Your task to perform on an android device: turn on the 24-hour format for clock Image 0: 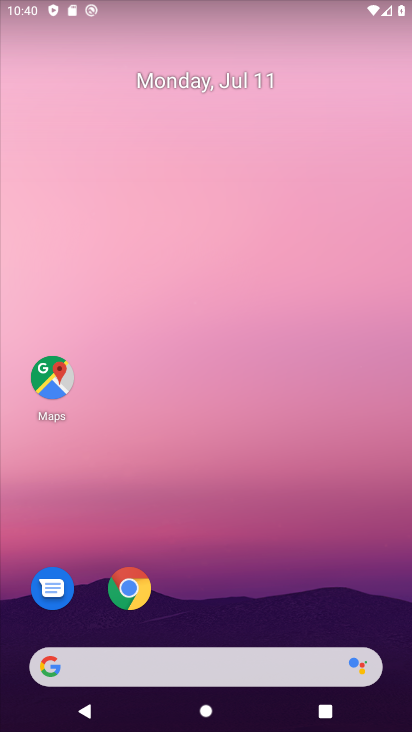
Step 0: drag from (272, 529) to (261, 116)
Your task to perform on an android device: turn on the 24-hour format for clock Image 1: 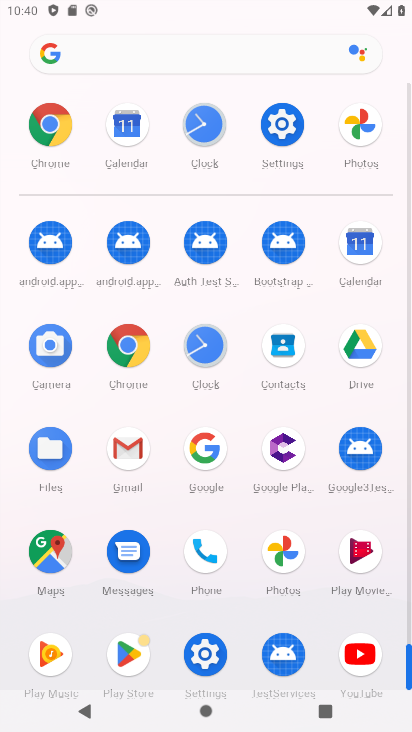
Step 1: click (205, 121)
Your task to perform on an android device: turn on the 24-hour format for clock Image 2: 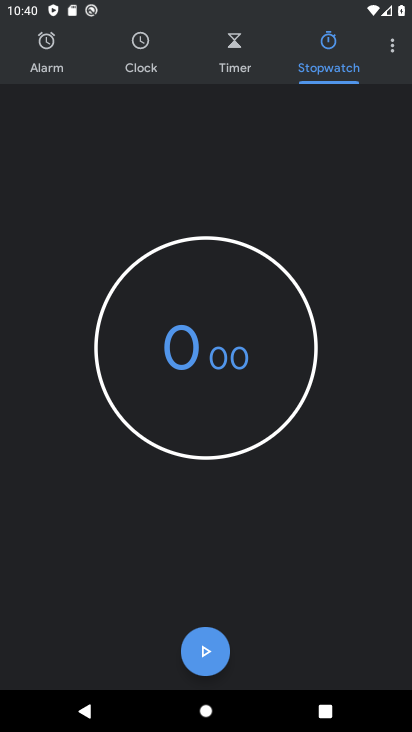
Step 2: click (392, 49)
Your task to perform on an android device: turn on the 24-hour format for clock Image 3: 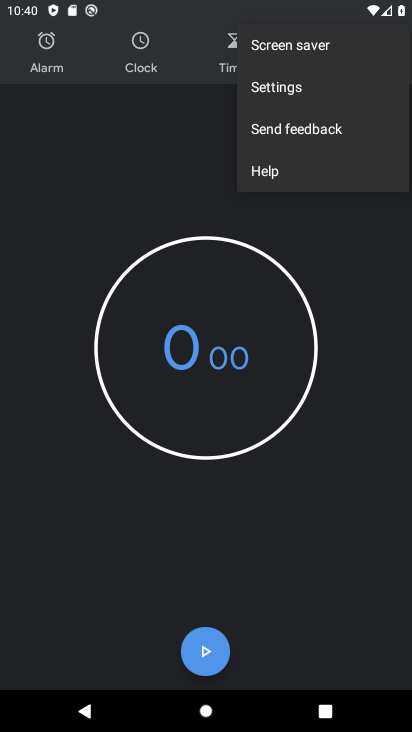
Step 3: click (286, 86)
Your task to perform on an android device: turn on the 24-hour format for clock Image 4: 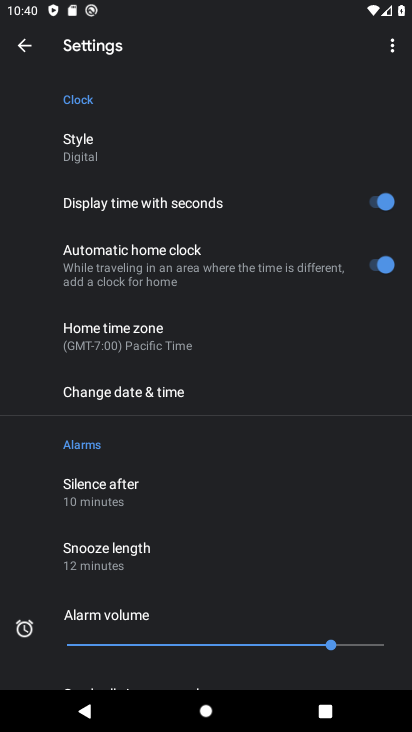
Step 4: drag from (200, 543) to (222, 360)
Your task to perform on an android device: turn on the 24-hour format for clock Image 5: 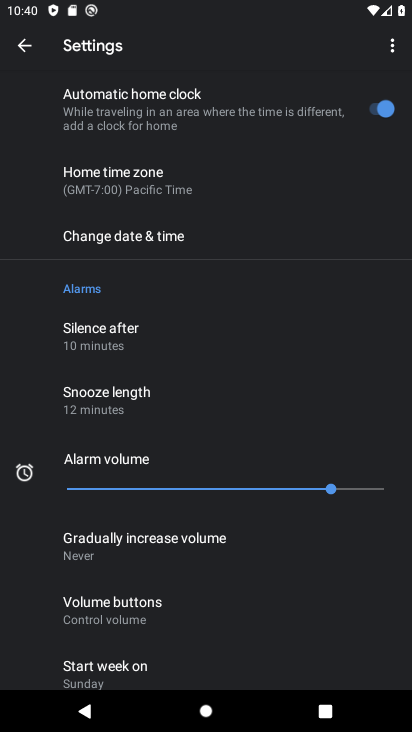
Step 5: click (147, 233)
Your task to perform on an android device: turn on the 24-hour format for clock Image 6: 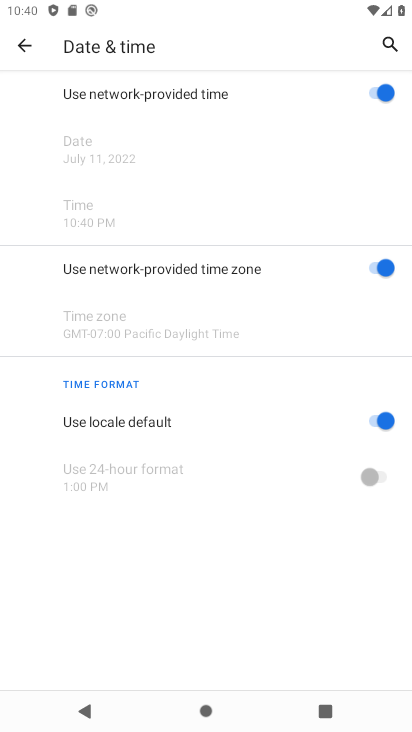
Step 6: click (376, 421)
Your task to perform on an android device: turn on the 24-hour format for clock Image 7: 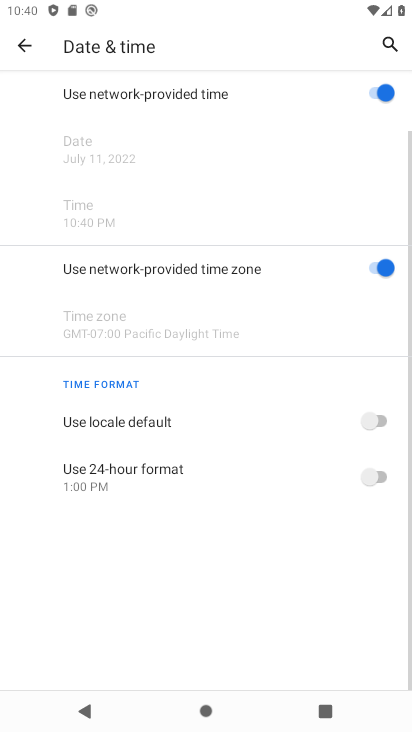
Step 7: click (368, 476)
Your task to perform on an android device: turn on the 24-hour format for clock Image 8: 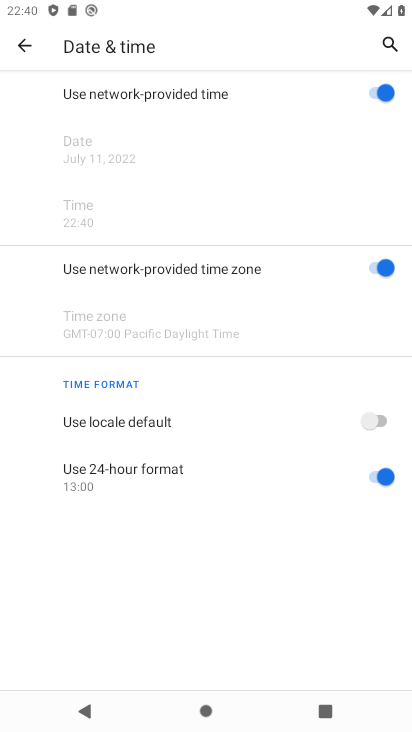
Step 8: task complete